Your task to perform on an android device: open the mobile data screen to see how much data has been used Image 0: 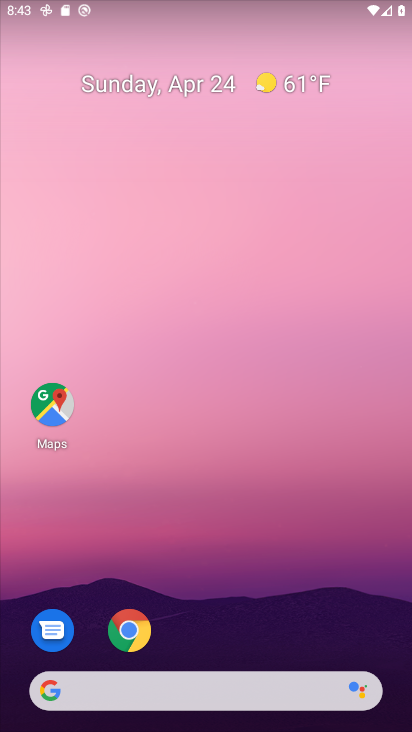
Step 0: drag from (355, 619) to (368, 79)
Your task to perform on an android device: open the mobile data screen to see how much data has been used Image 1: 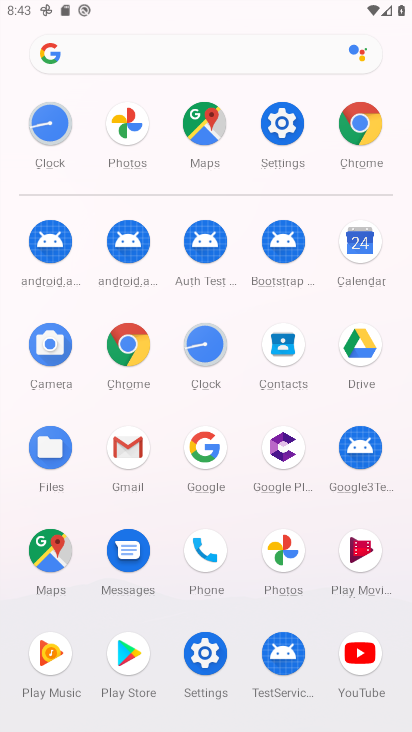
Step 1: click (288, 130)
Your task to perform on an android device: open the mobile data screen to see how much data has been used Image 2: 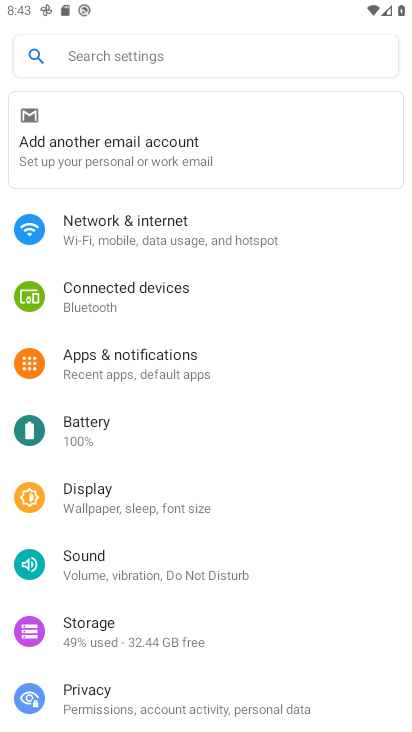
Step 2: drag from (338, 603) to (376, 317)
Your task to perform on an android device: open the mobile data screen to see how much data has been used Image 3: 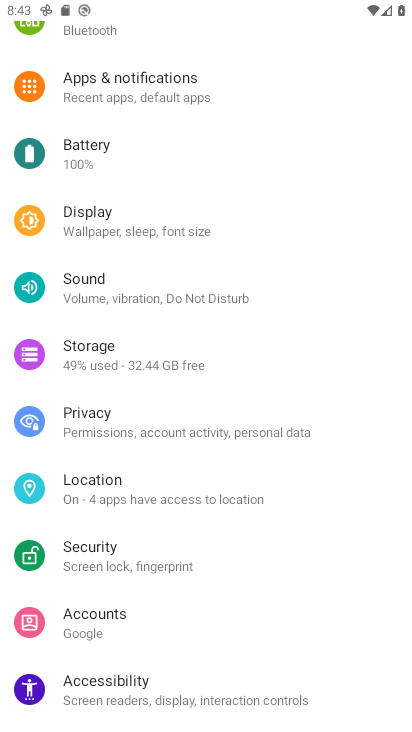
Step 3: drag from (298, 635) to (362, 215)
Your task to perform on an android device: open the mobile data screen to see how much data has been used Image 4: 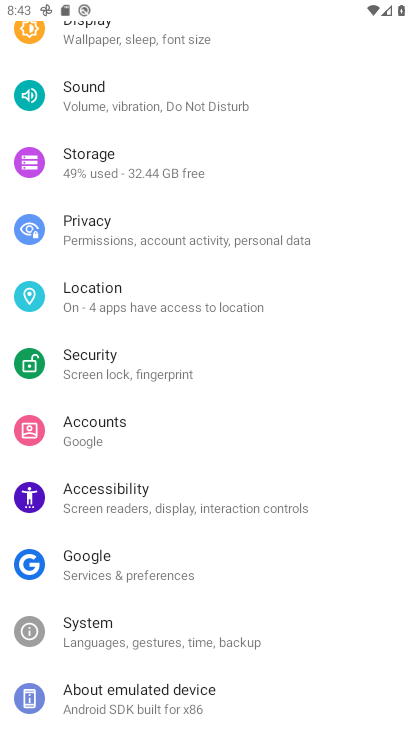
Step 4: drag from (363, 196) to (330, 456)
Your task to perform on an android device: open the mobile data screen to see how much data has been used Image 5: 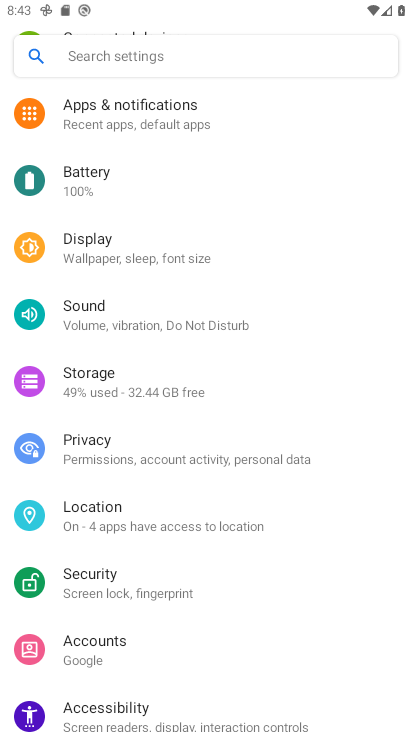
Step 5: drag from (347, 240) to (359, 485)
Your task to perform on an android device: open the mobile data screen to see how much data has been used Image 6: 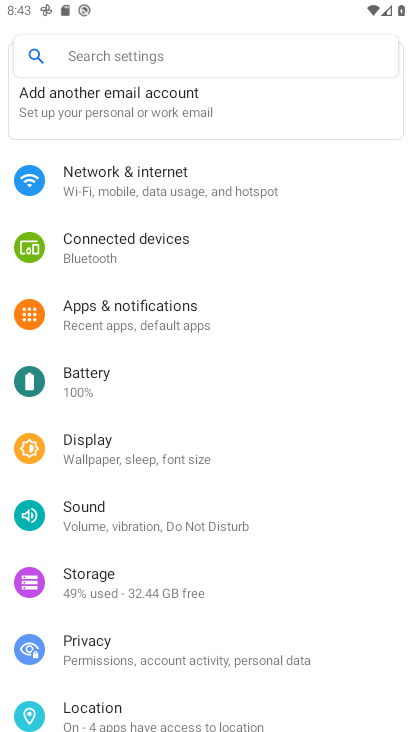
Step 6: click (250, 176)
Your task to perform on an android device: open the mobile data screen to see how much data has been used Image 7: 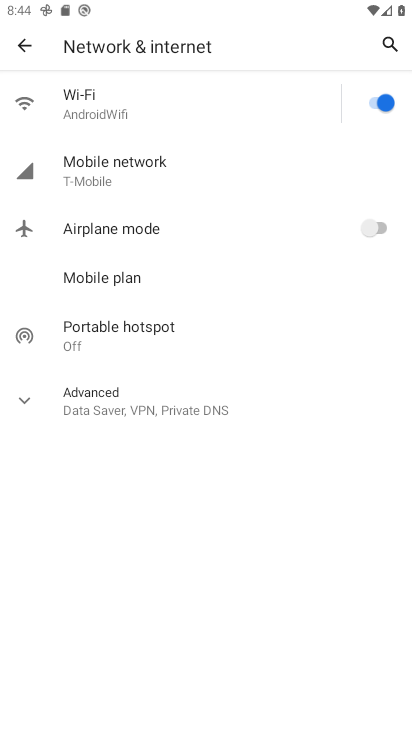
Step 7: click (136, 173)
Your task to perform on an android device: open the mobile data screen to see how much data has been used Image 8: 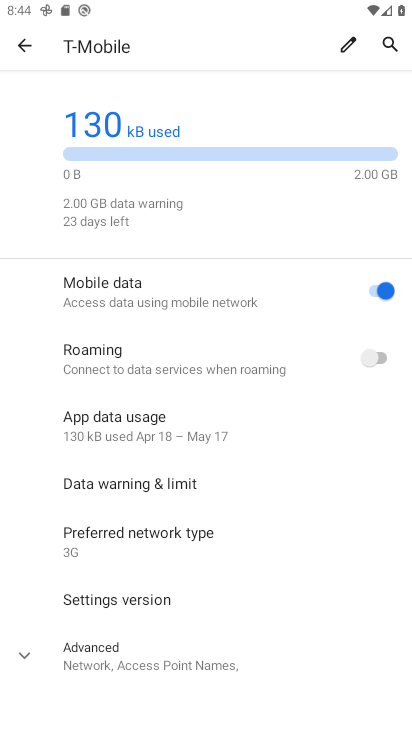
Step 8: drag from (283, 581) to (275, 349)
Your task to perform on an android device: open the mobile data screen to see how much data has been used Image 9: 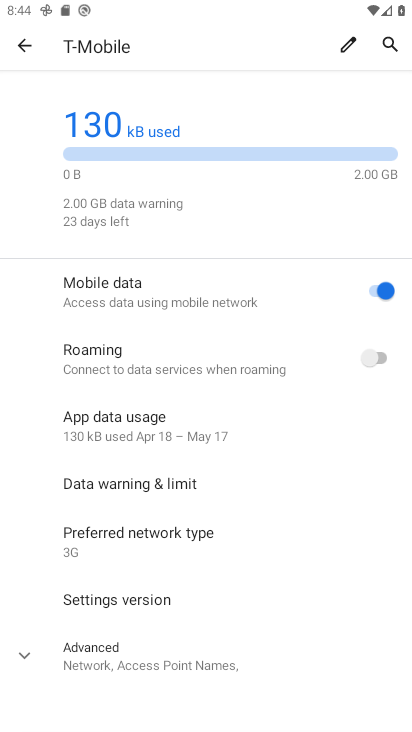
Step 9: click (194, 433)
Your task to perform on an android device: open the mobile data screen to see how much data has been used Image 10: 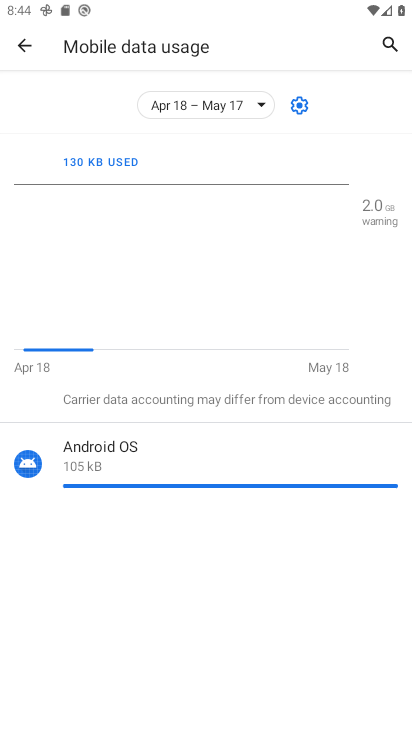
Step 10: task complete